Your task to perform on an android device: set an alarm Image 0: 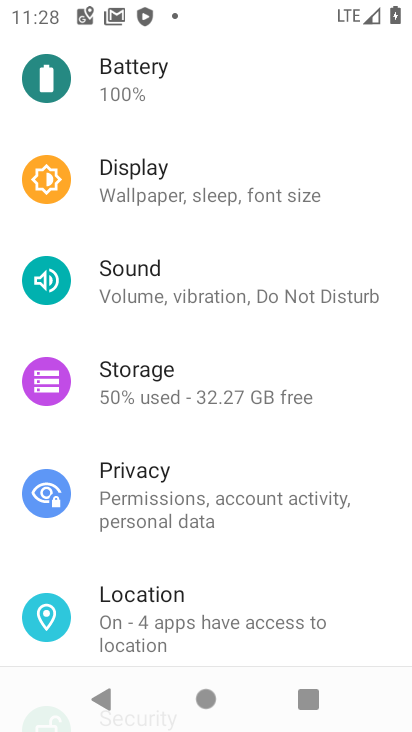
Step 0: press home button
Your task to perform on an android device: set an alarm Image 1: 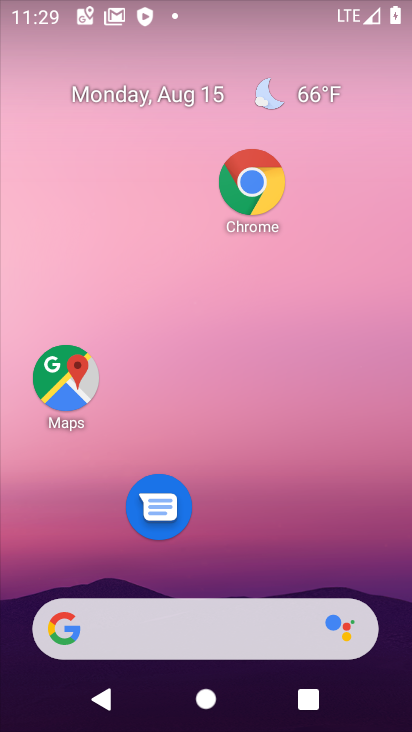
Step 1: click (405, 43)
Your task to perform on an android device: set an alarm Image 2: 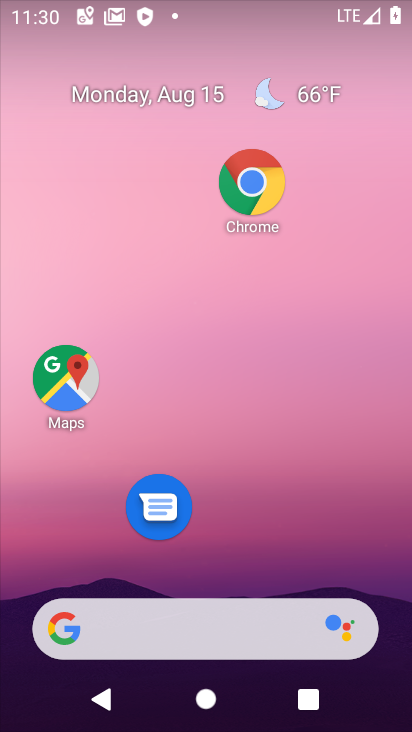
Step 2: drag from (317, 576) to (218, 115)
Your task to perform on an android device: set an alarm Image 3: 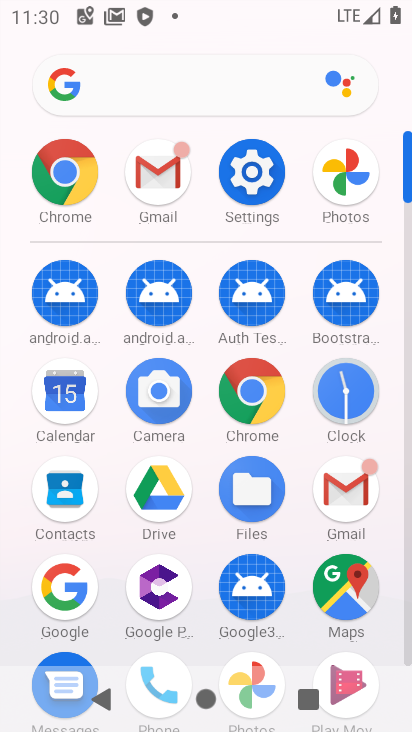
Step 3: click (342, 397)
Your task to perform on an android device: set an alarm Image 4: 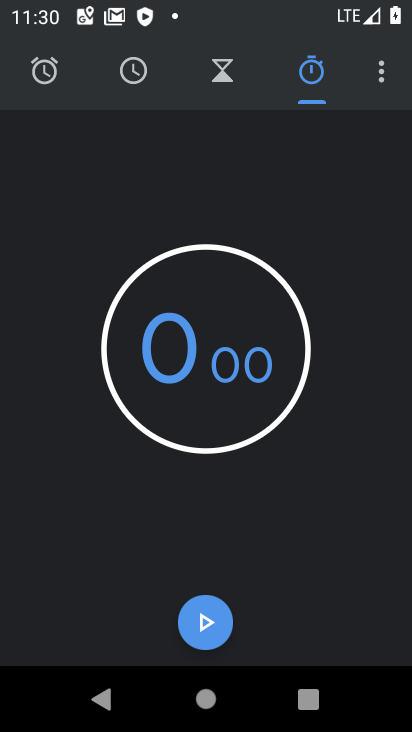
Step 4: task complete